Your task to perform on an android device: Open Youtube and go to the subscriptions tab Image 0: 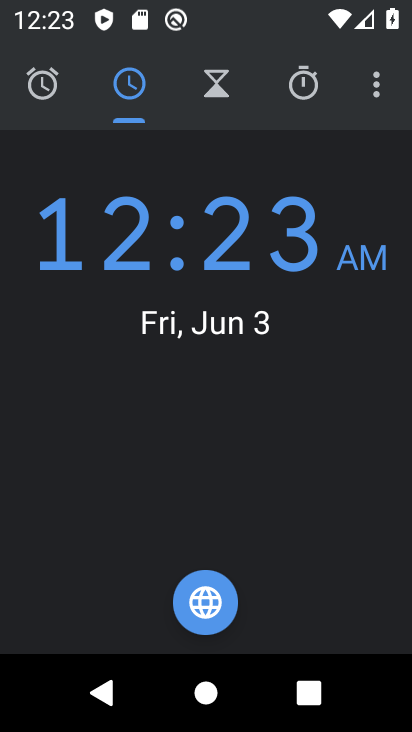
Step 0: press home button
Your task to perform on an android device: Open Youtube and go to the subscriptions tab Image 1: 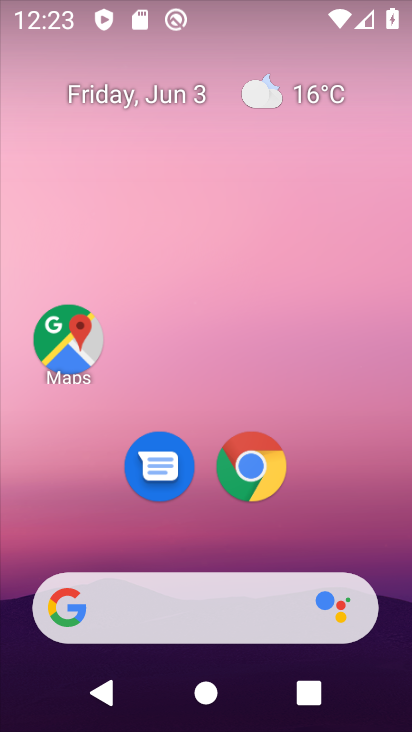
Step 1: drag from (54, 580) to (177, 146)
Your task to perform on an android device: Open Youtube and go to the subscriptions tab Image 2: 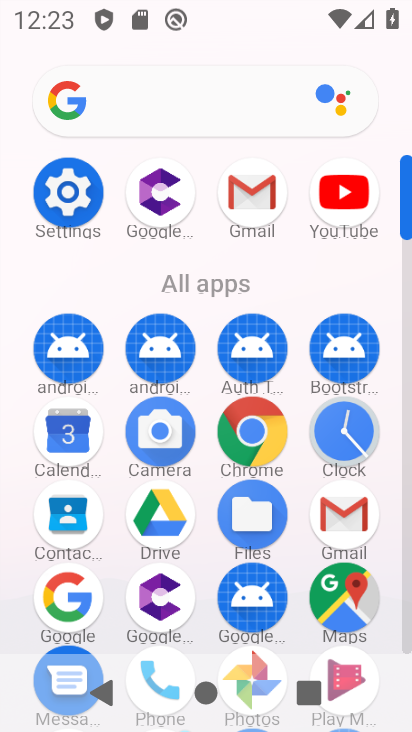
Step 2: drag from (219, 582) to (304, 279)
Your task to perform on an android device: Open Youtube and go to the subscriptions tab Image 3: 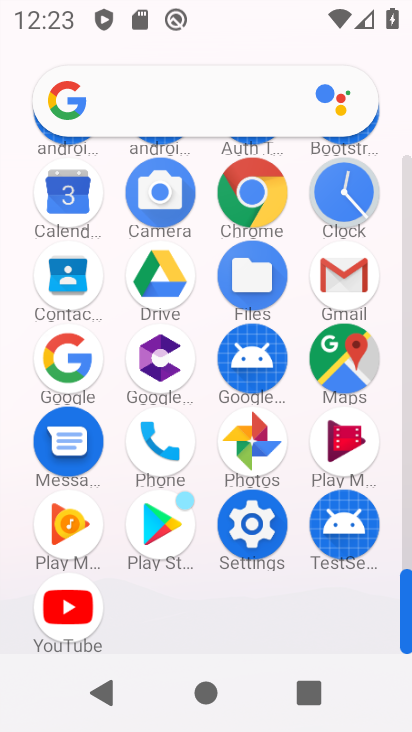
Step 3: click (82, 634)
Your task to perform on an android device: Open Youtube and go to the subscriptions tab Image 4: 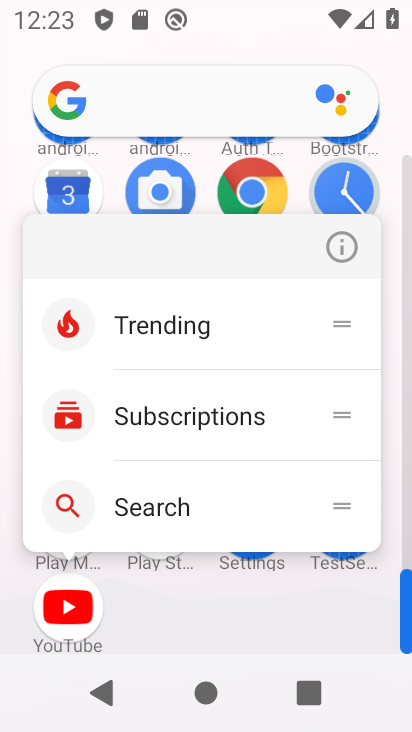
Step 4: click (70, 652)
Your task to perform on an android device: Open Youtube and go to the subscriptions tab Image 5: 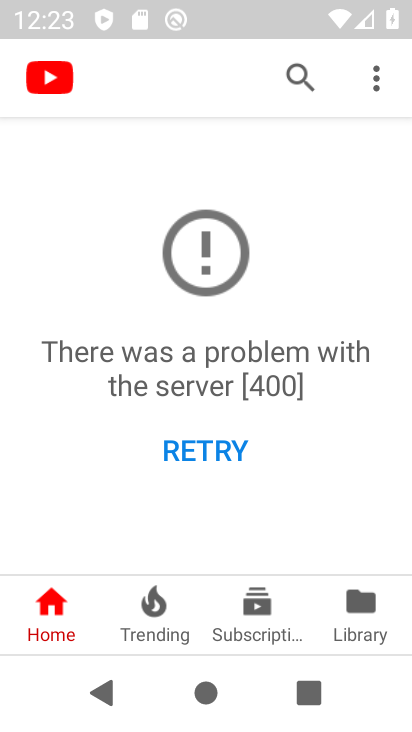
Step 5: click (242, 631)
Your task to perform on an android device: Open Youtube and go to the subscriptions tab Image 6: 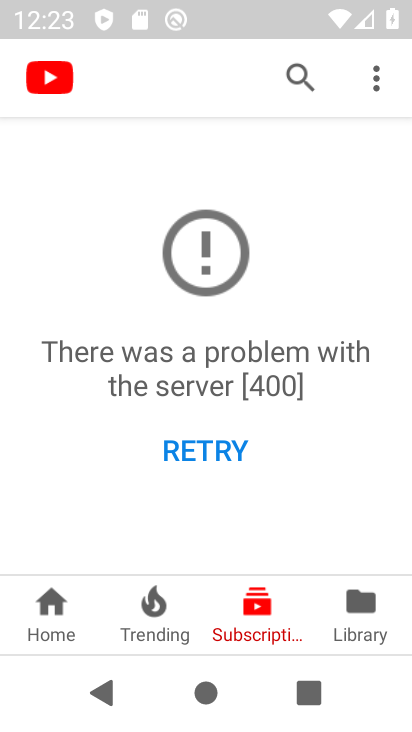
Step 6: task complete